Your task to perform on an android device: What is the recent news? Image 0: 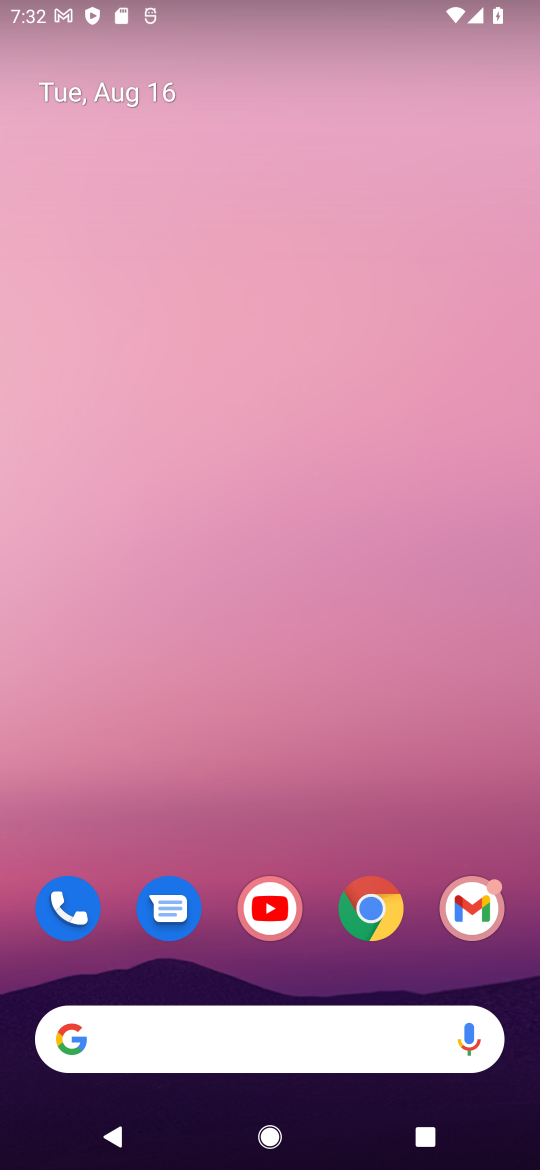
Step 0: click (183, 1052)
Your task to perform on an android device: What is the recent news? Image 1: 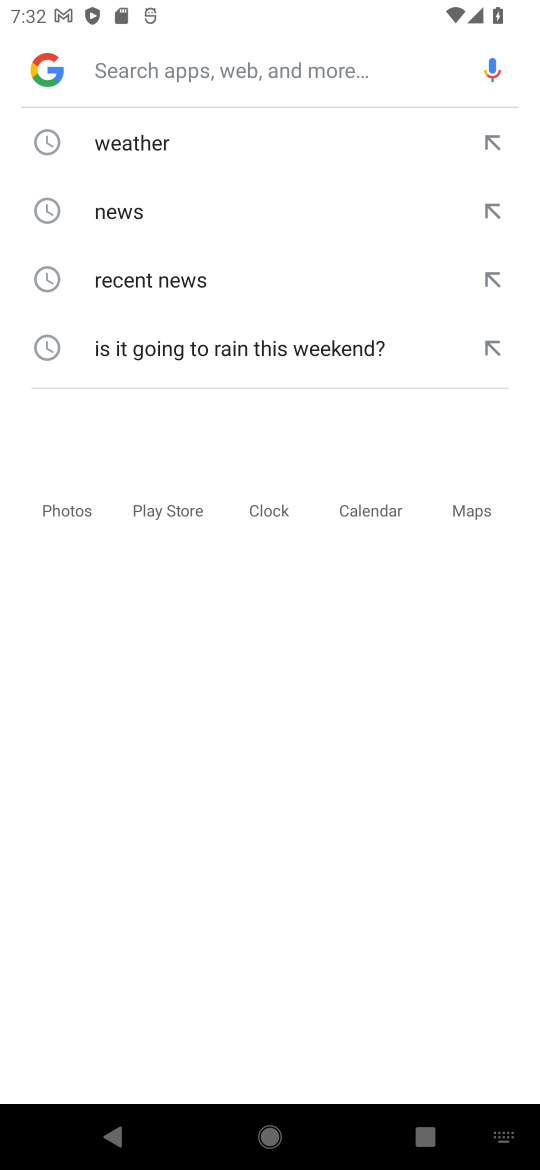
Step 1: click (196, 283)
Your task to perform on an android device: What is the recent news? Image 2: 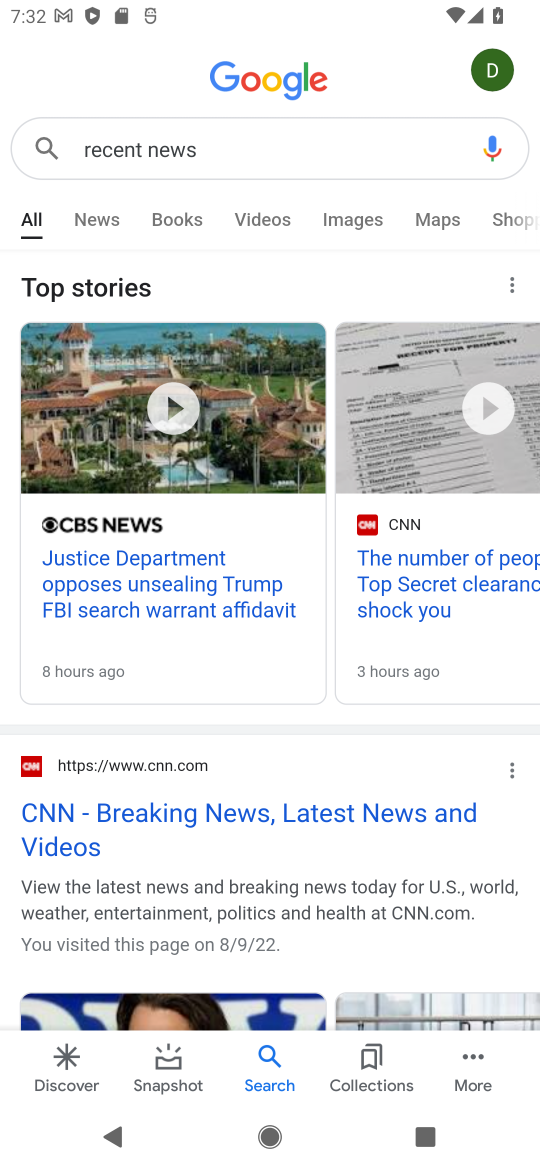
Step 2: task complete